Your task to perform on an android device: check the backup settings in the google photos Image 0: 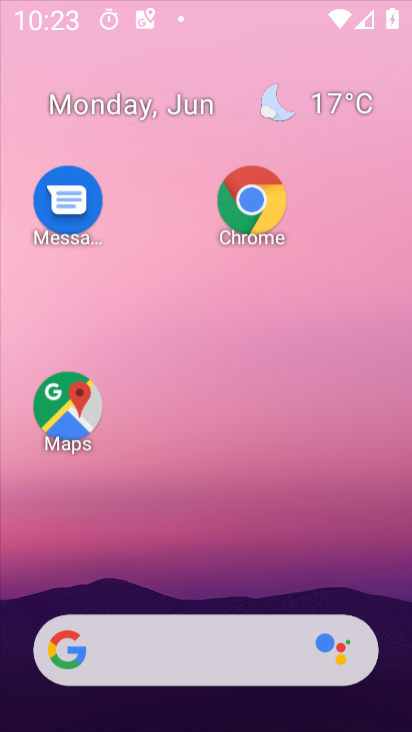
Step 0: click (217, 30)
Your task to perform on an android device: check the backup settings in the google photos Image 1: 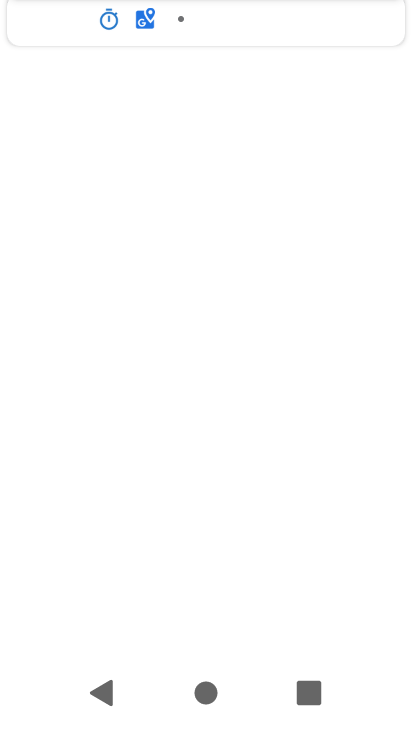
Step 1: press home button
Your task to perform on an android device: check the backup settings in the google photos Image 2: 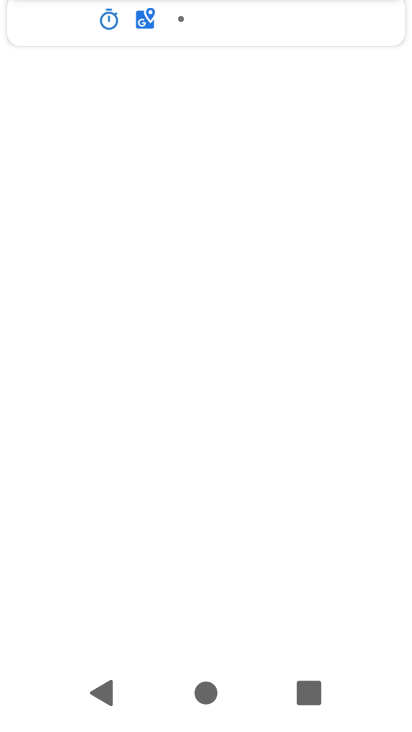
Step 2: drag from (217, 30) to (377, 606)
Your task to perform on an android device: check the backup settings in the google photos Image 3: 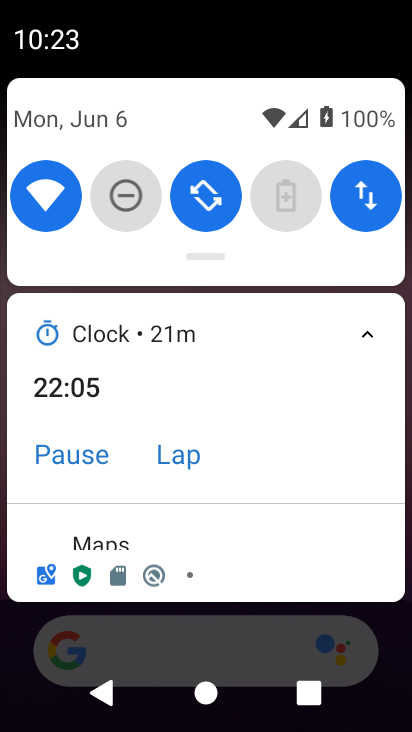
Step 3: press home button
Your task to perform on an android device: check the backup settings in the google photos Image 4: 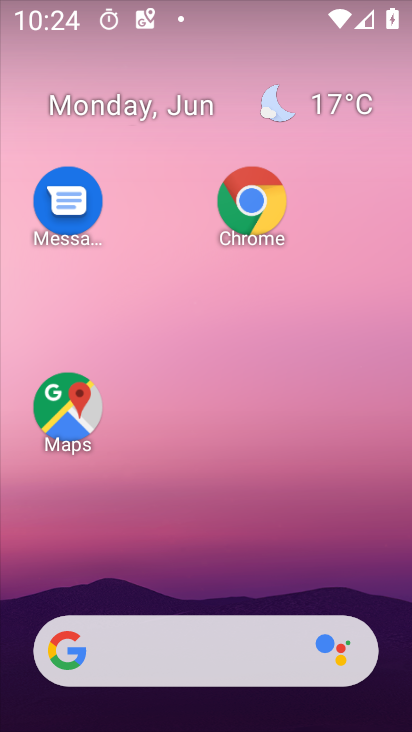
Step 4: drag from (216, 616) to (234, 149)
Your task to perform on an android device: check the backup settings in the google photos Image 5: 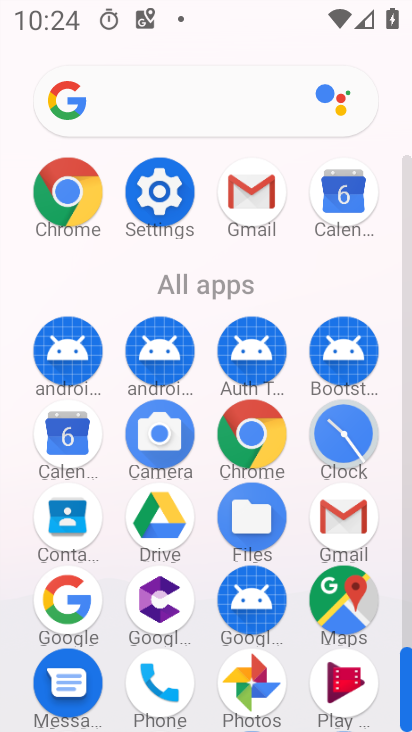
Step 5: click (230, 695)
Your task to perform on an android device: check the backup settings in the google photos Image 6: 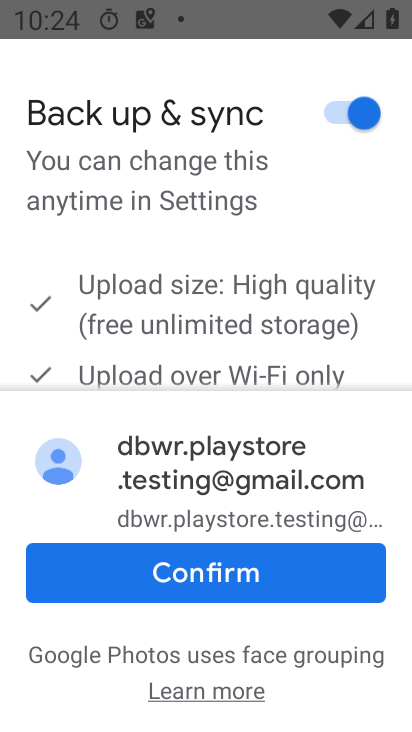
Step 6: click (46, 76)
Your task to perform on an android device: check the backup settings in the google photos Image 7: 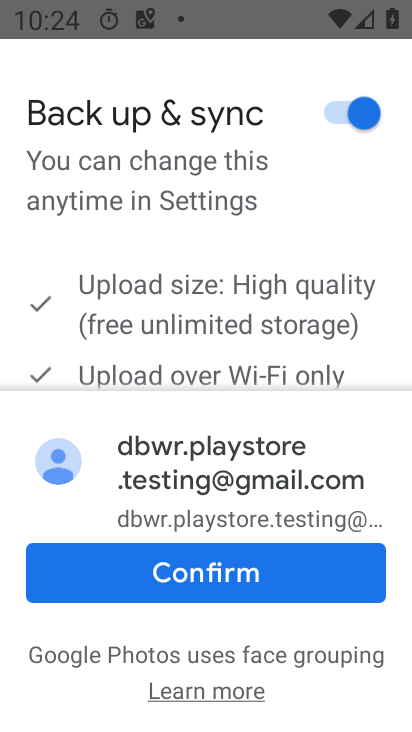
Step 7: click (218, 548)
Your task to perform on an android device: check the backup settings in the google photos Image 8: 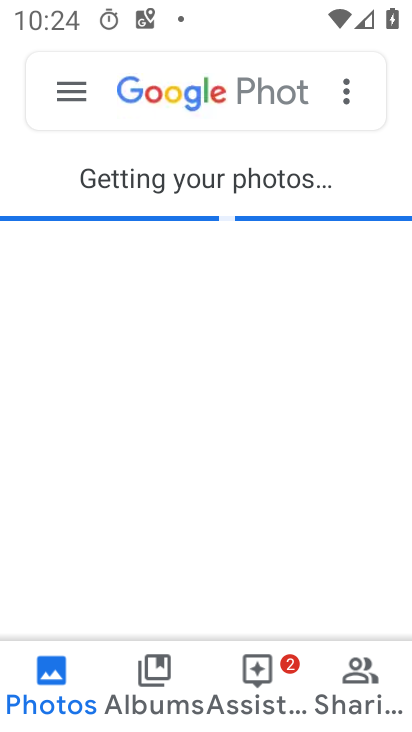
Step 8: click (62, 115)
Your task to perform on an android device: check the backup settings in the google photos Image 9: 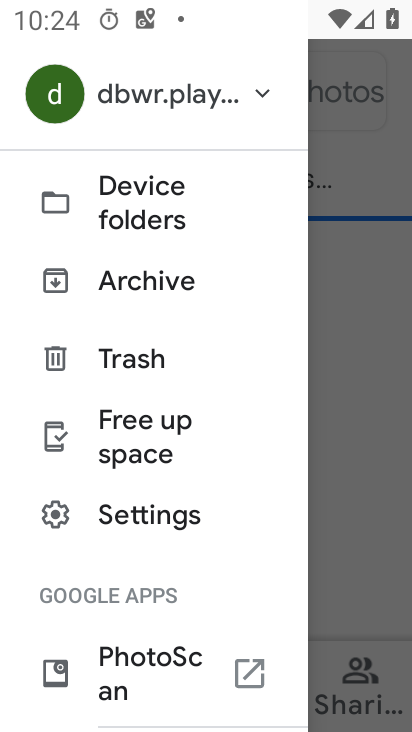
Step 9: click (96, 505)
Your task to perform on an android device: check the backup settings in the google photos Image 10: 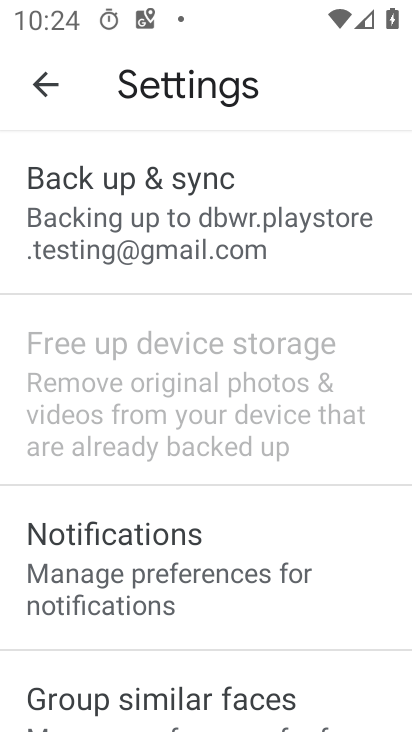
Step 10: click (172, 212)
Your task to perform on an android device: check the backup settings in the google photos Image 11: 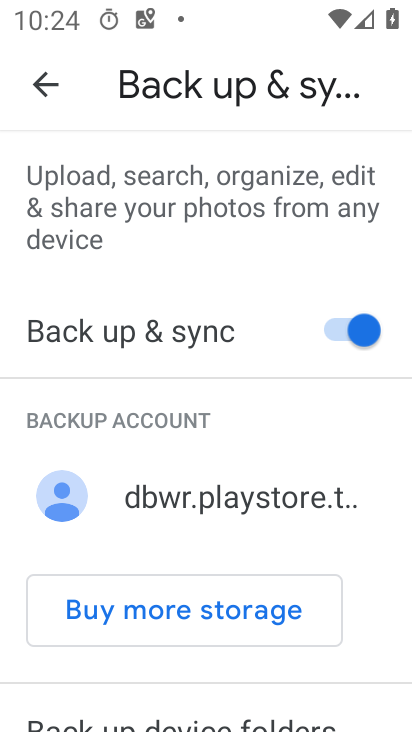
Step 11: task complete